Your task to perform on an android device: star an email in the gmail app Image 0: 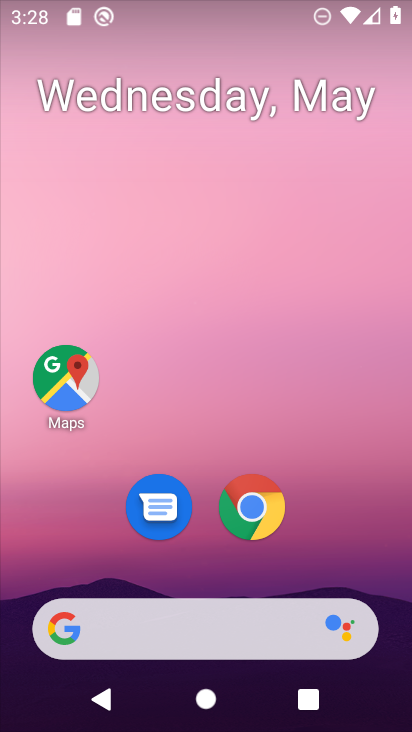
Step 0: drag from (208, 579) to (312, 149)
Your task to perform on an android device: star an email in the gmail app Image 1: 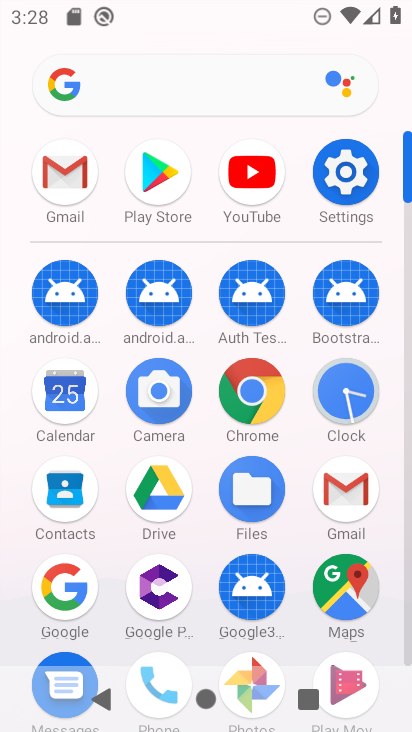
Step 1: click (362, 510)
Your task to perform on an android device: star an email in the gmail app Image 2: 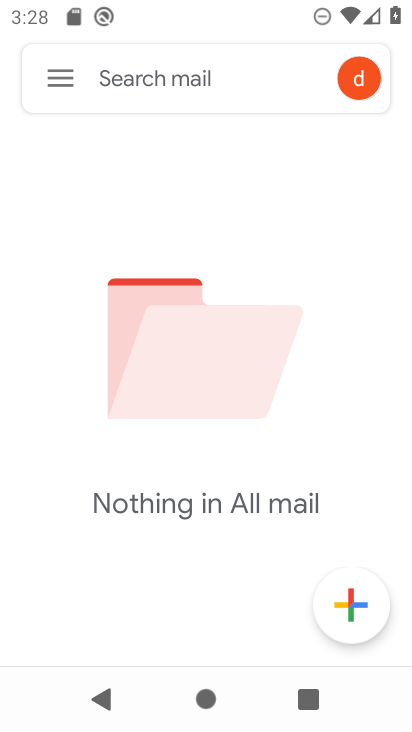
Step 2: click (52, 77)
Your task to perform on an android device: star an email in the gmail app Image 3: 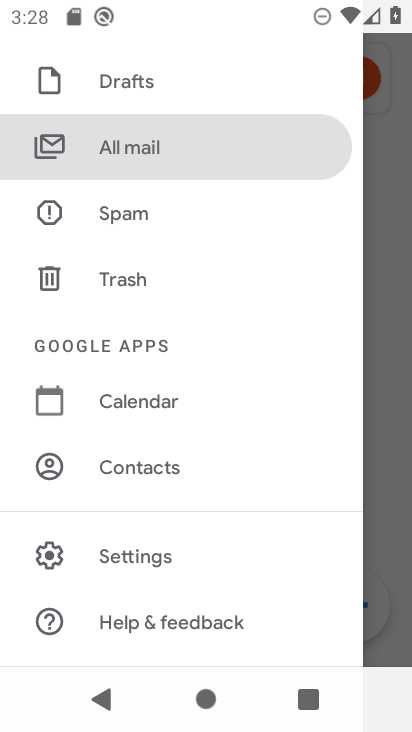
Step 3: click (165, 164)
Your task to perform on an android device: star an email in the gmail app Image 4: 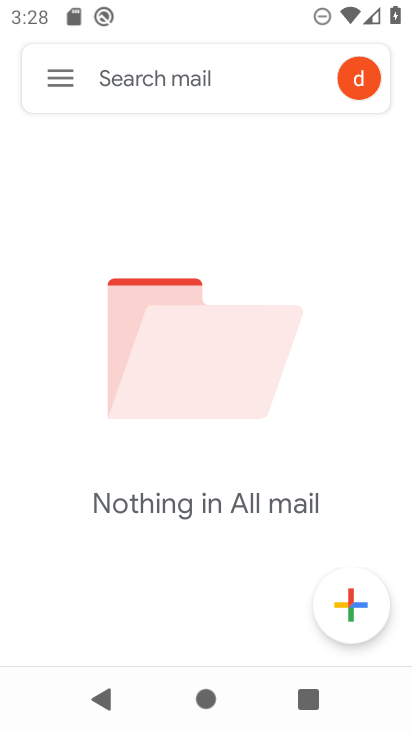
Step 4: task complete